Your task to perform on an android device: Is it going to rain tomorrow? Image 0: 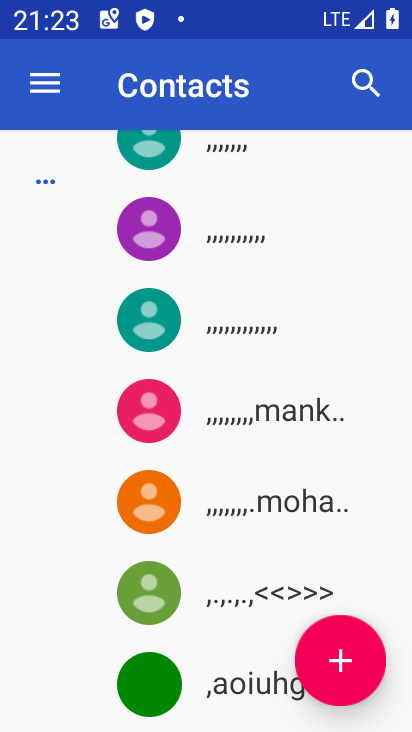
Step 0: press home button
Your task to perform on an android device: Is it going to rain tomorrow? Image 1: 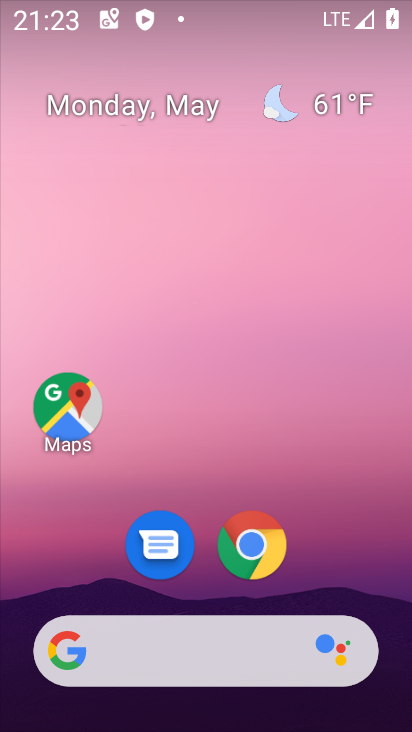
Step 1: drag from (206, 646) to (130, 218)
Your task to perform on an android device: Is it going to rain tomorrow? Image 2: 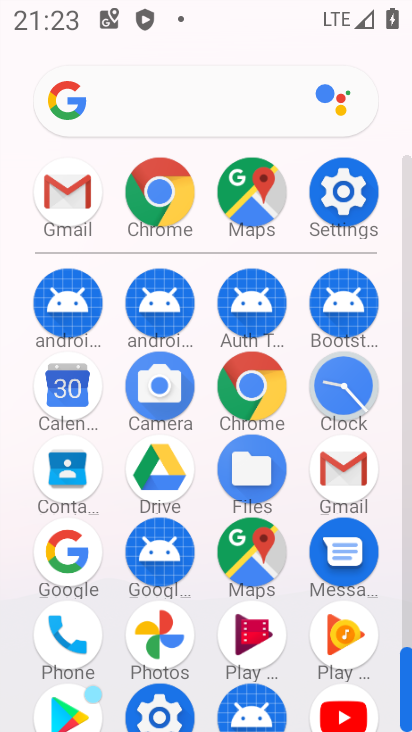
Step 2: click (75, 561)
Your task to perform on an android device: Is it going to rain tomorrow? Image 3: 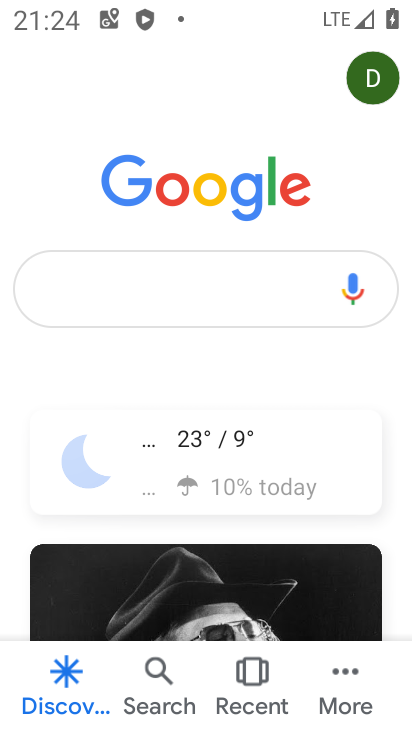
Step 3: click (87, 461)
Your task to perform on an android device: Is it going to rain tomorrow? Image 4: 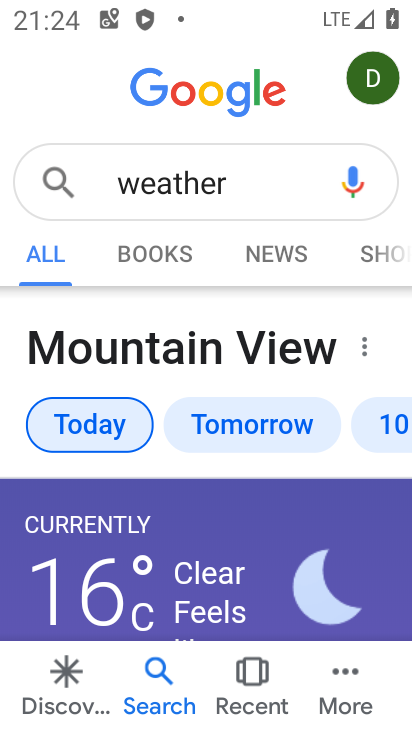
Step 4: click (252, 425)
Your task to perform on an android device: Is it going to rain tomorrow? Image 5: 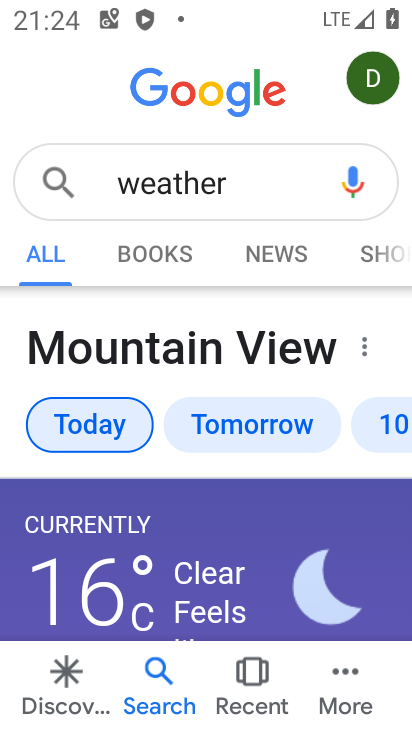
Step 5: click (256, 442)
Your task to perform on an android device: Is it going to rain tomorrow? Image 6: 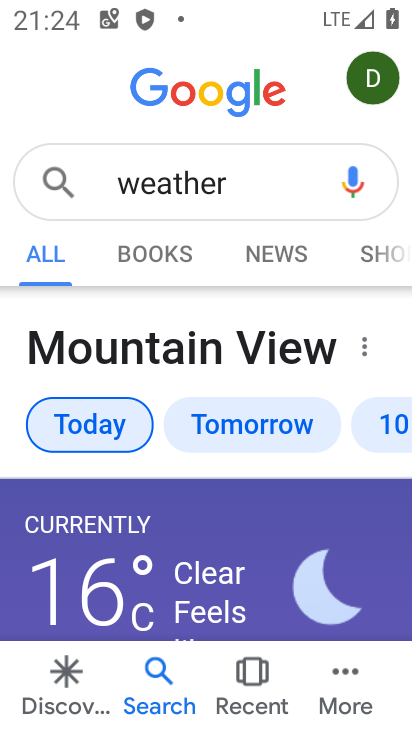
Step 6: click (256, 442)
Your task to perform on an android device: Is it going to rain tomorrow? Image 7: 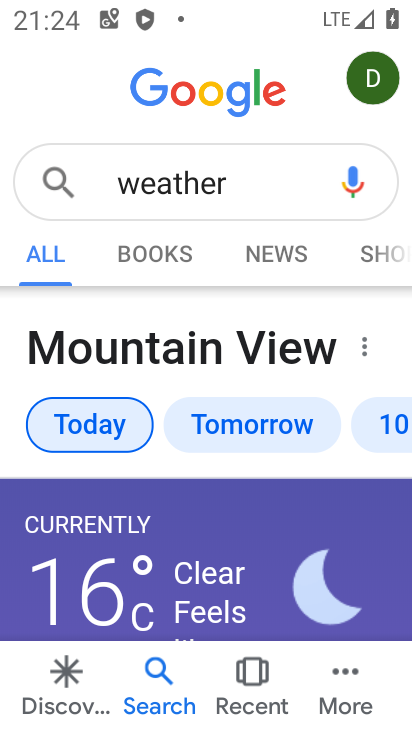
Step 7: click (297, 435)
Your task to perform on an android device: Is it going to rain tomorrow? Image 8: 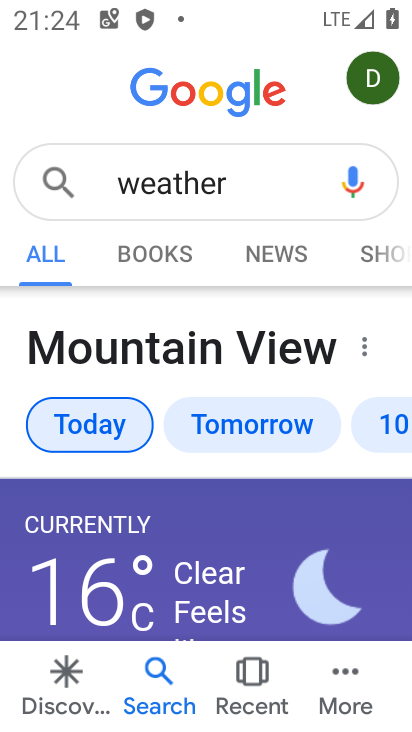
Step 8: click (254, 178)
Your task to perform on an android device: Is it going to rain tomorrow? Image 9: 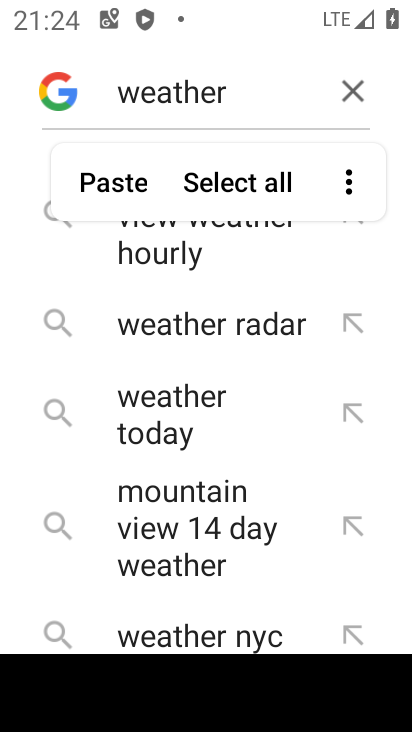
Step 9: type " tomorrow"
Your task to perform on an android device: Is it going to rain tomorrow? Image 10: 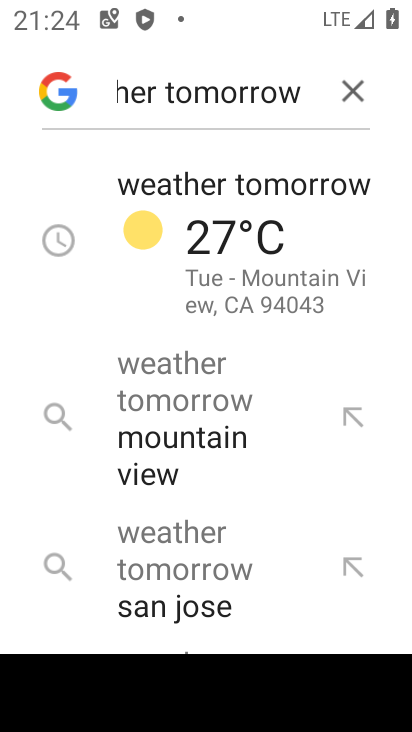
Step 10: click (250, 270)
Your task to perform on an android device: Is it going to rain tomorrow? Image 11: 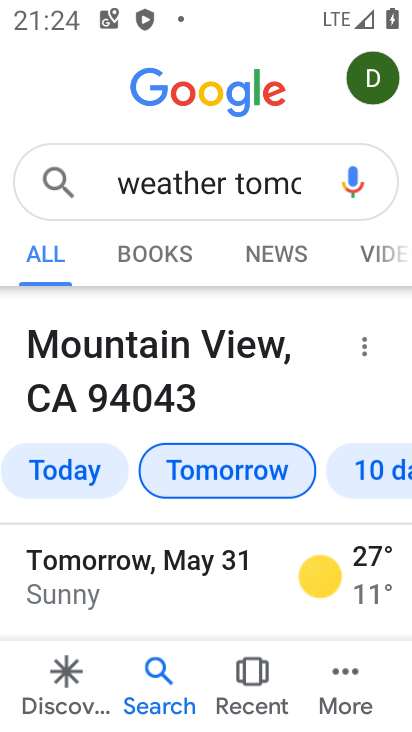
Step 11: task complete